Your task to perform on an android device: turn vacation reply on in the gmail app Image 0: 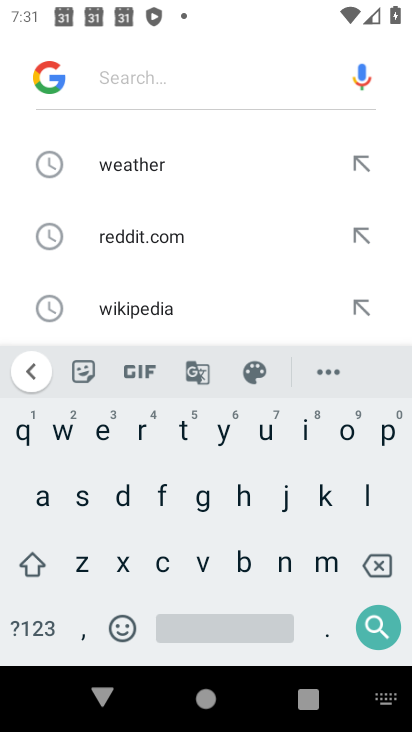
Step 0: press home button
Your task to perform on an android device: turn vacation reply on in the gmail app Image 1: 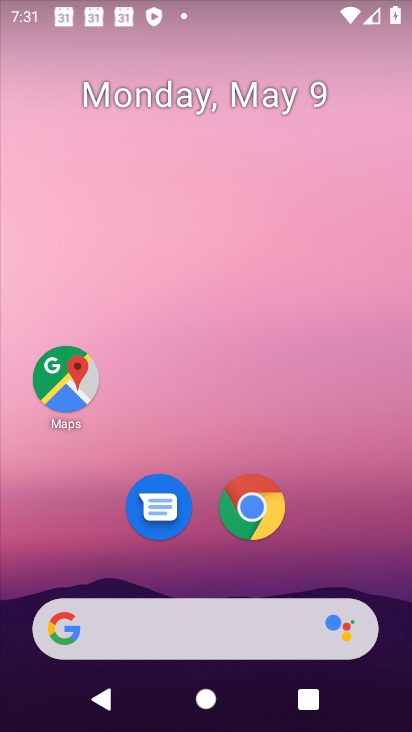
Step 1: drag from (292, 669) to (312, 250)
Your task to perform on an android device: turn vacation reply on in the gmail app Image 2: 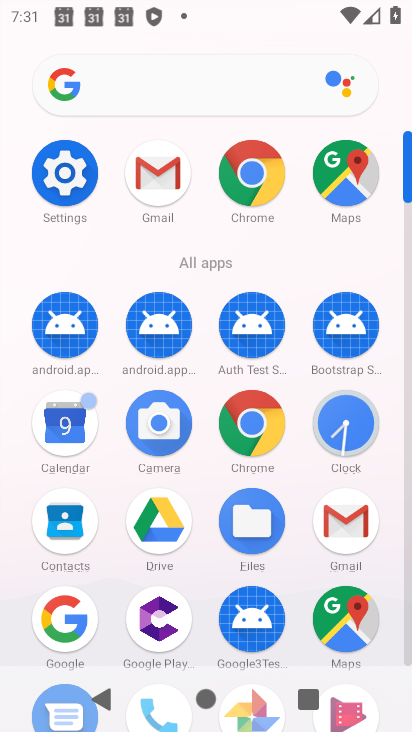
Step 2: click (152, 169)
Your task to perform on an android device: turn vacation reply on in the gmail app Image 3: 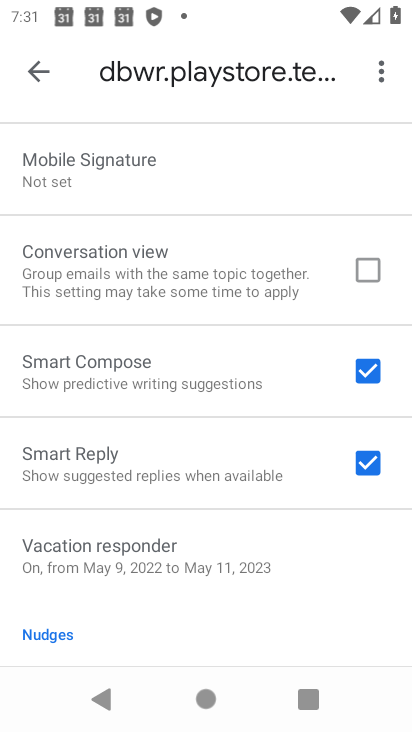
Step 3: click (190, 540)
Your task to perform on an android device: turn vacation reply on in the gmail app Image 4: 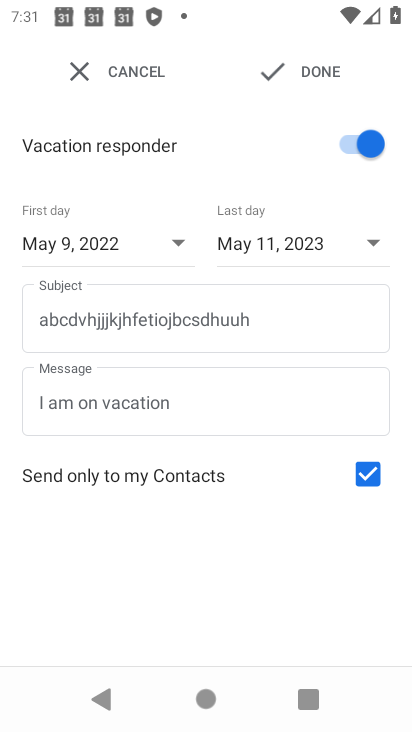
Step 4: task complete